Your task to perform on an android device: Go to Yahoo.com Image 0: 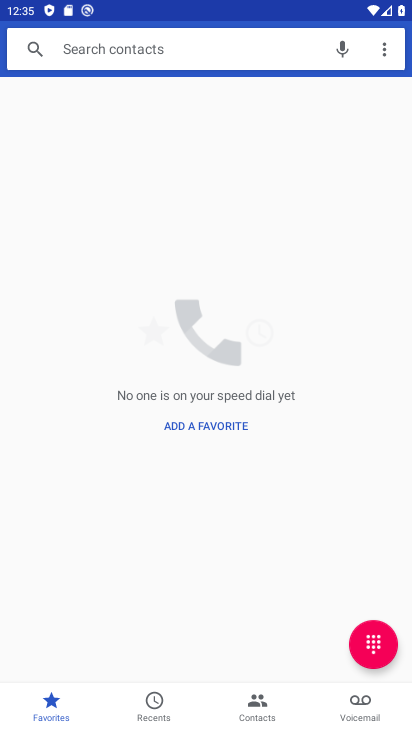
Step 0: press home button
Your task to perform on an android device: Go to Yahoo.com Image 1: 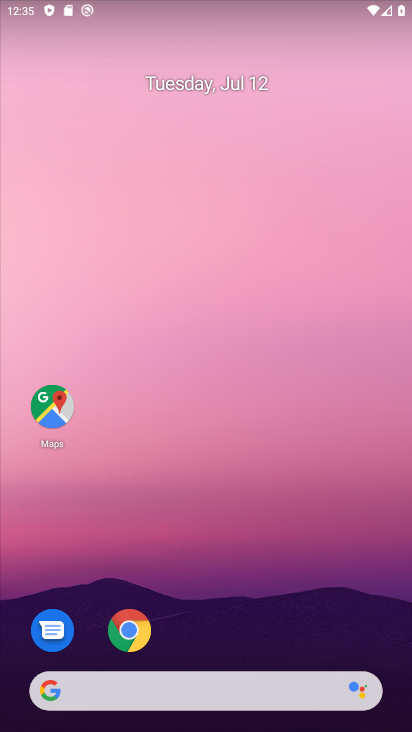
Step 1: click (127, 631)
Your task to perform on an android device: Go to Yahoo.com Image 2: 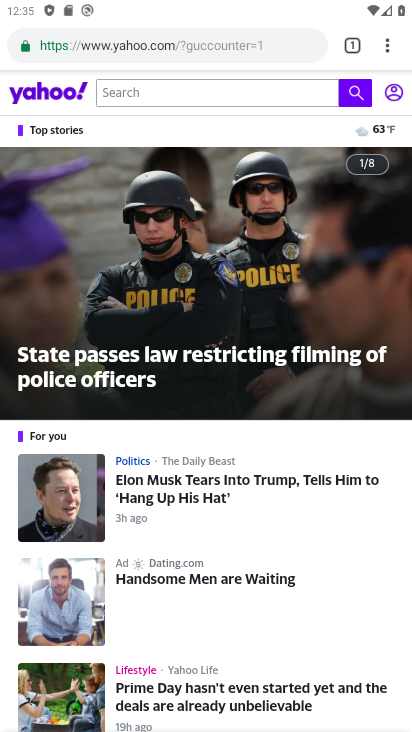
Step 2: task complete